Your task to perform on an android device: Open display settings Image 0: 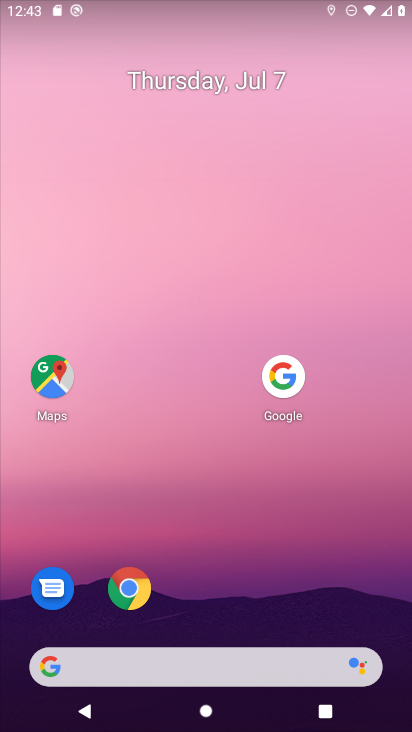
Step 0: drag from (168, 666) to (365, 113)
Your task to perform on an android device: Open display settings Image 1: 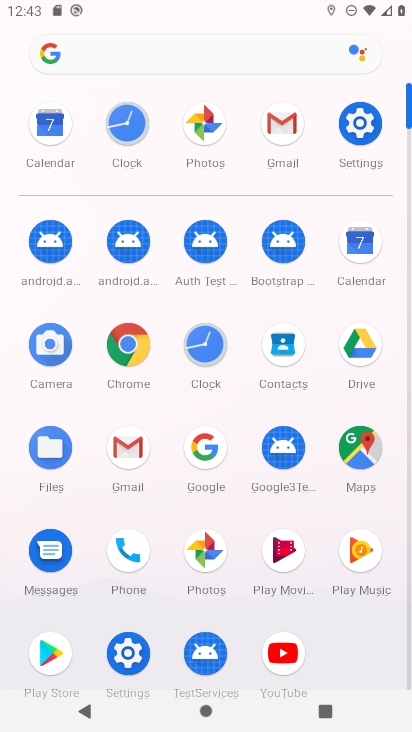
Step 1: click (350, 117)
Your task to perform on an android device: Open display settings Image 2: 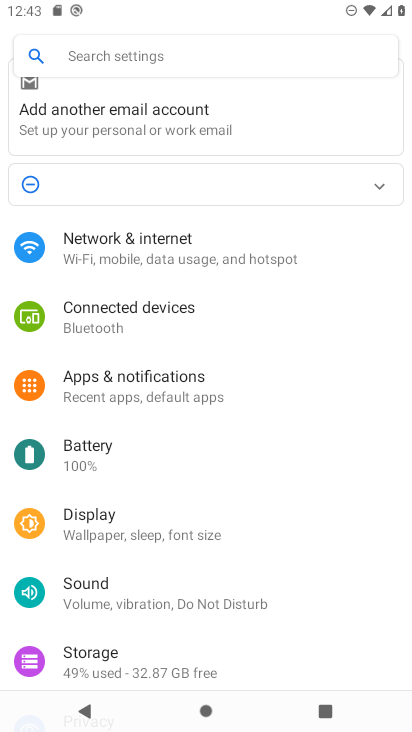
Step 2: click (90, 514)
Your task to perform on an android device: Open display settings Image 3: 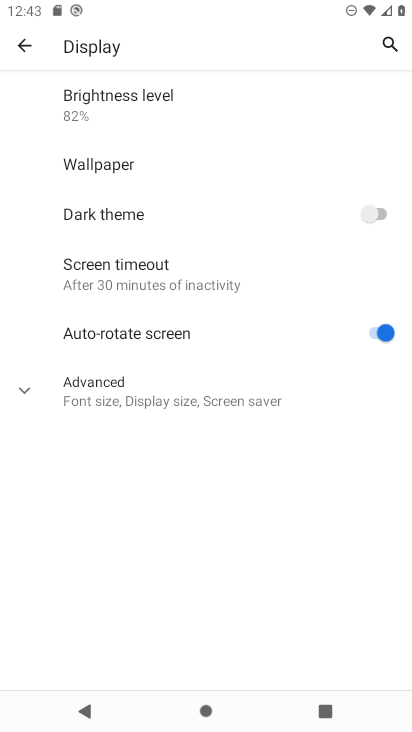
Step 3: task complete